Your task to perform on an android device: clear all cookies in the chrome app Image 0: 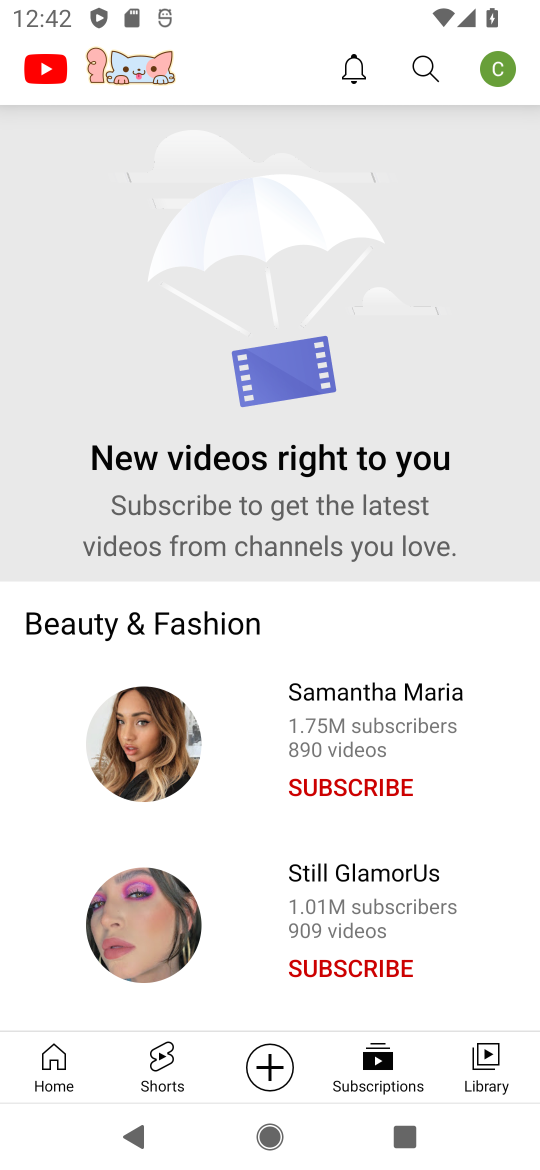
Step 0: press back button
Your task to perform on an android device: clear all cookies in the chrome app Image 1: 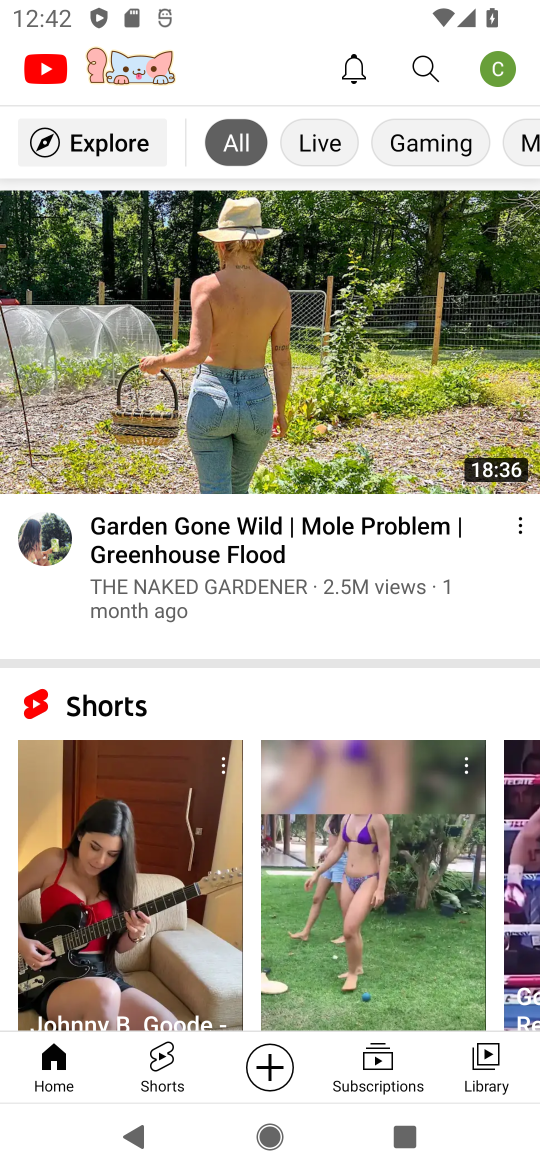
Step 1: press back button
Your task to perform on an android device: clear all cookies in the chrome app Image 2: 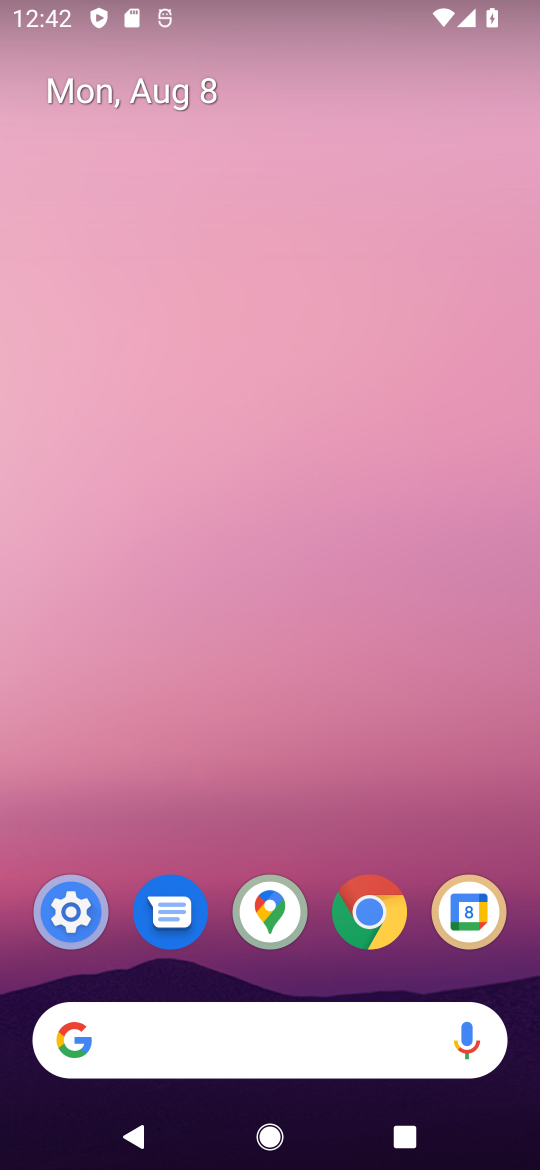
Step 2: click (383, 916)
Your task to perform on an android device: clear all cookies in the chrome app Image 3: 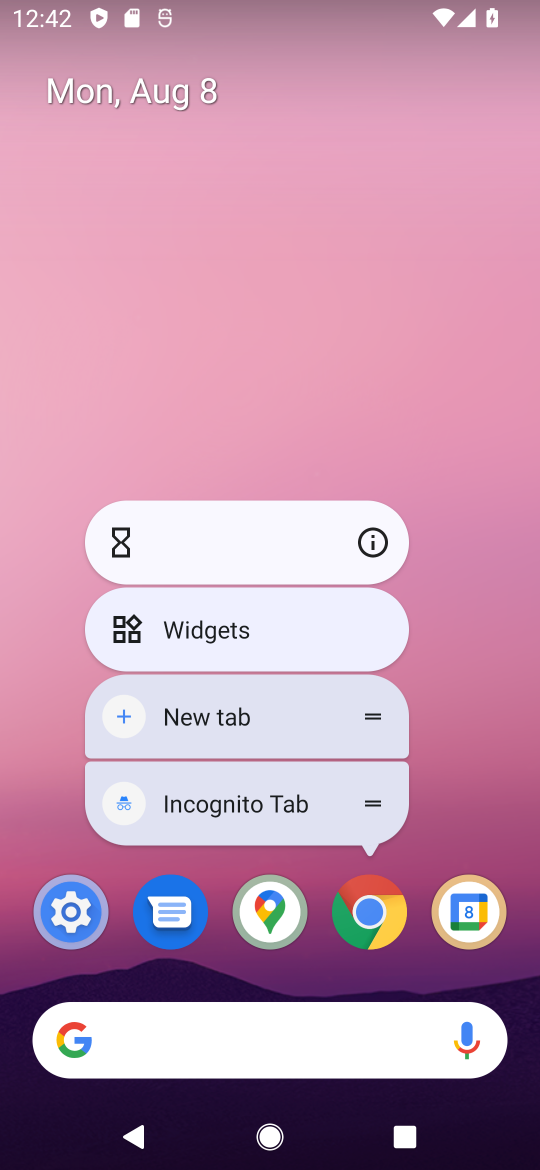
Step 3: click (351, 913)
Your task to perform on an android device: clear all cookies in the chrome app Image 4: 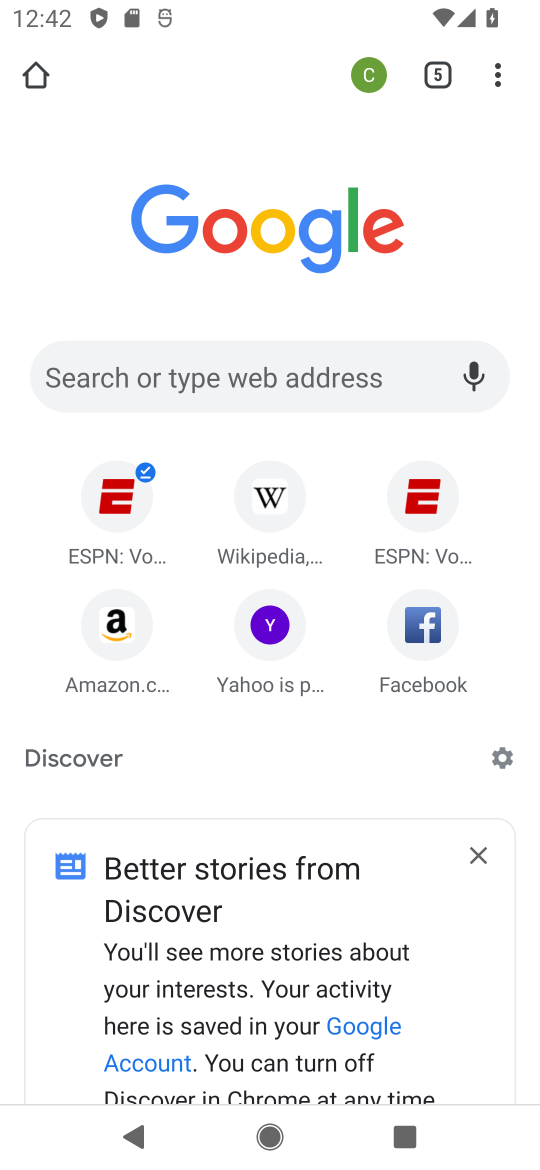
Step 4: drag from (501, 71) to (274, 398)
Your task to perform on an android device: clear all cookies in the chrome app Image 5: 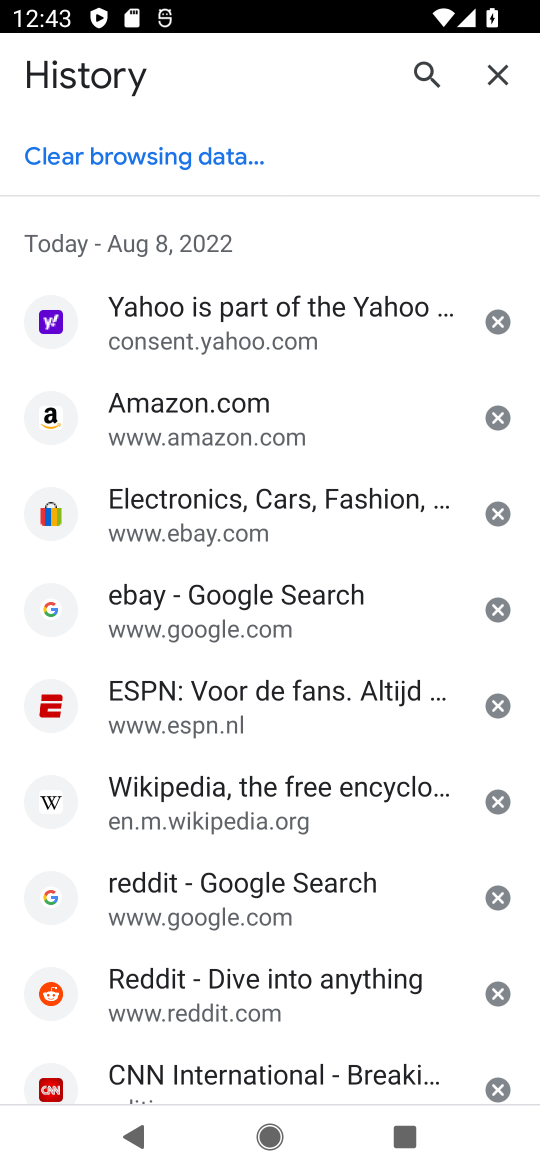
Step 5: click (173, 154)
Your task to perform on an android device: clear all cookies in the chrome app Image 6: 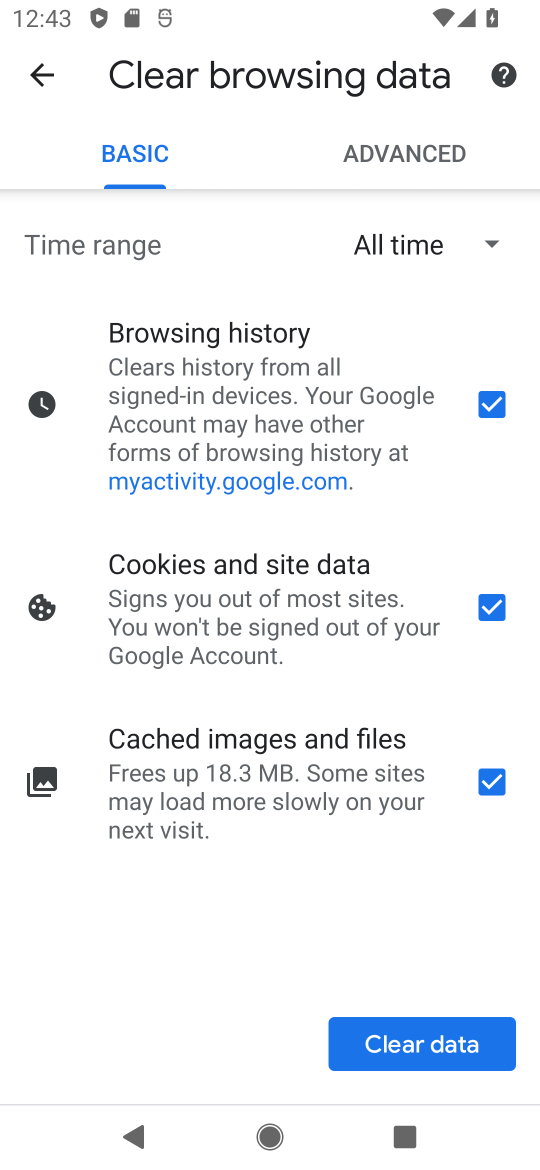
Step 6: click (489, 385)
Your task to perform on an android device: clear all cookies in the chrome app Image 7: 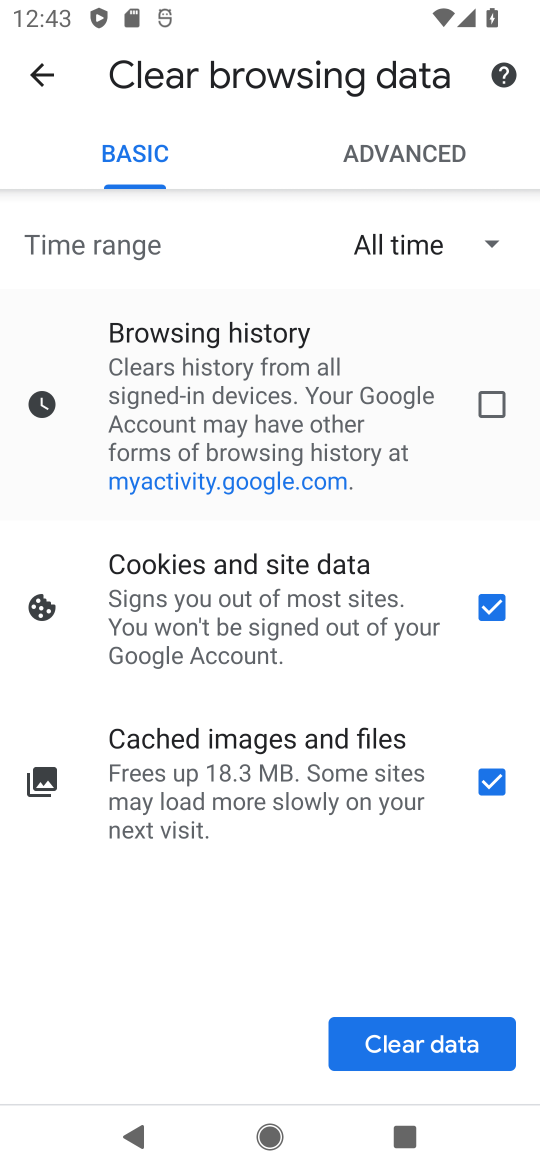
Step 7: click (481, 793)
Your task to perform on an android device: clear all cookies in the chrome app Image 8: 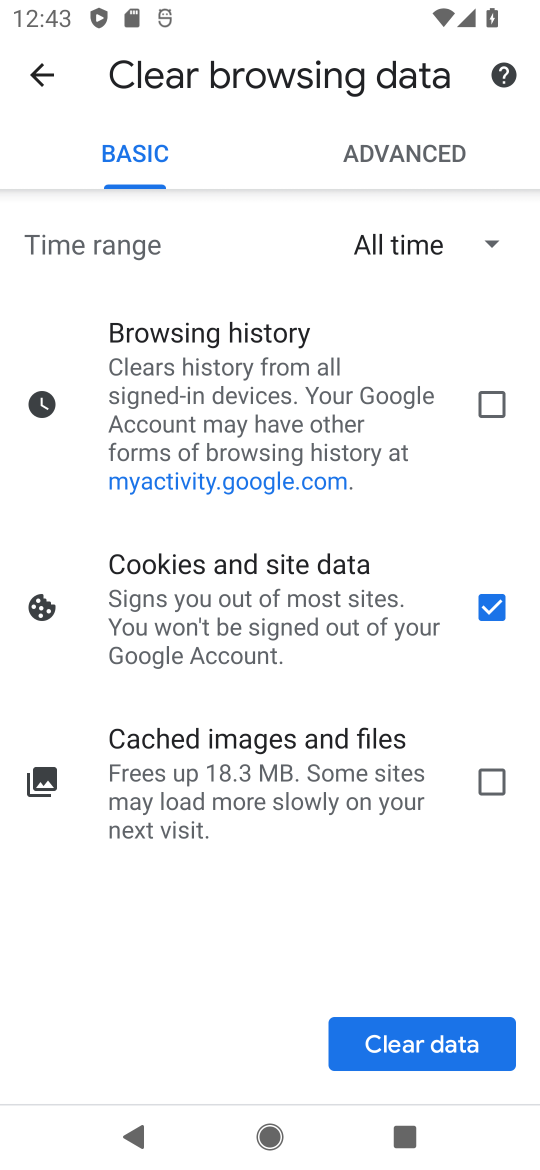
Step 8: click (403, 1028)
Your task to perform on an android device: clear all cookies in the chrome app Image 9: 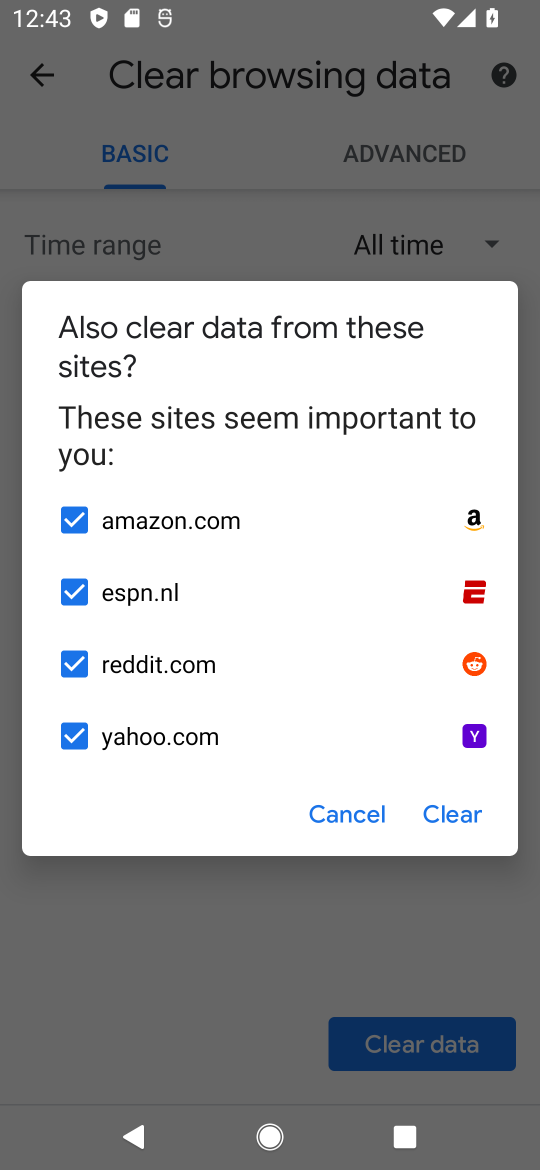
Step 9: click (454, 797)
Your task to perform on an android device: clear all cookies in the chrome app Image 10: 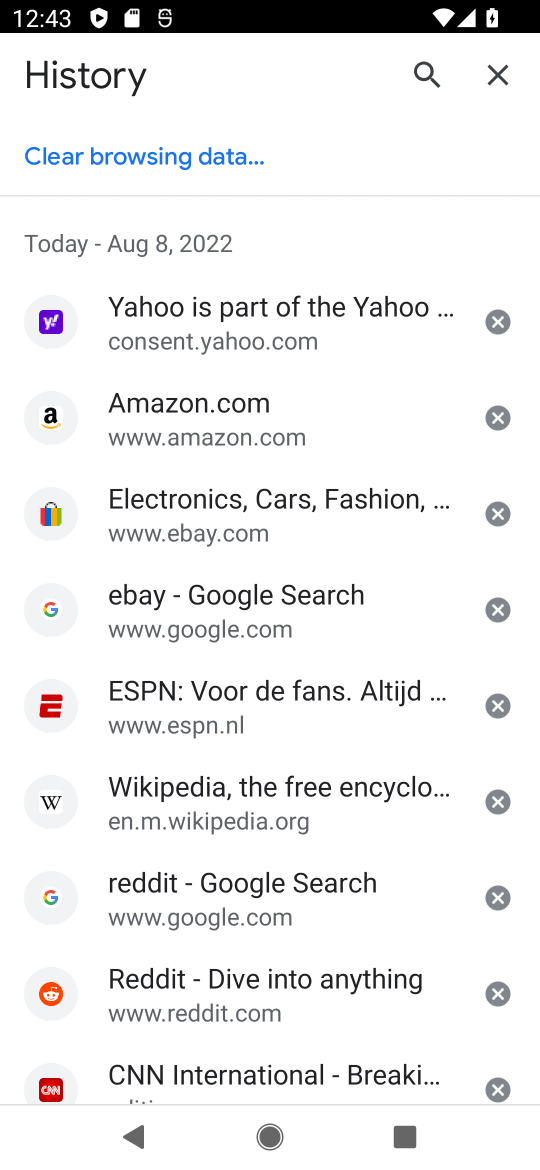
Step 10: task complete